Your task to perform on an android device: What's on my calendar today? Image 0: 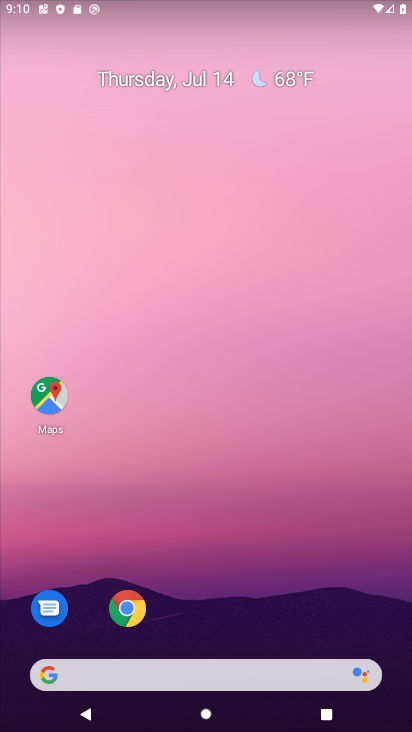
Step 0: drag from (186, 687) to (280, 175)
Your task to perform on an android device: What's on my calendar today? Image 1: 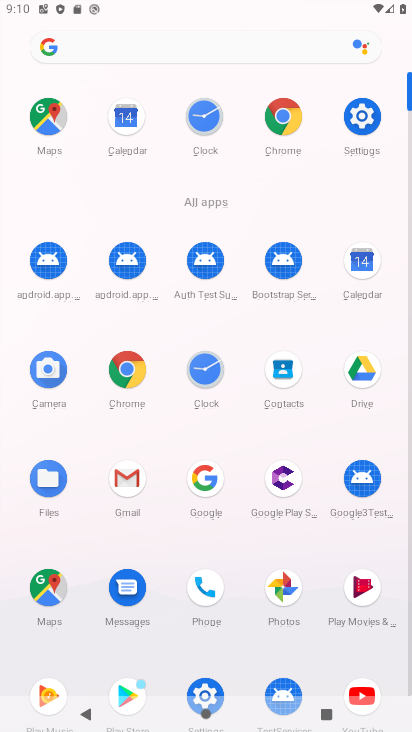
Step 1: click (360, 272)
Your task to perform on an android device: What's on my calendar today? Image 2: 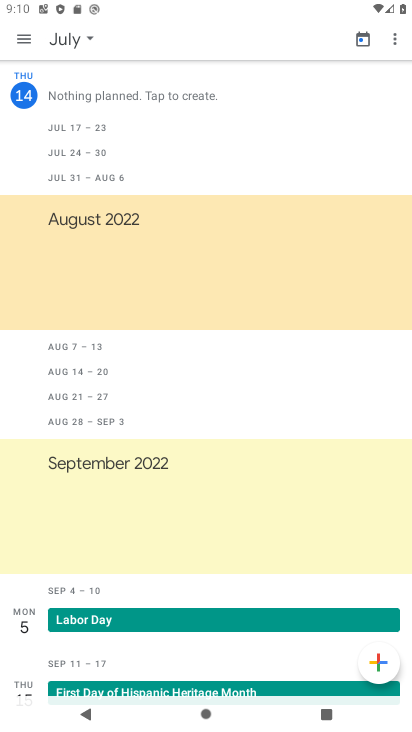
Step 2: click (17, 40)
Your task to perform on an android device: What's on my calendar today? Image 3: 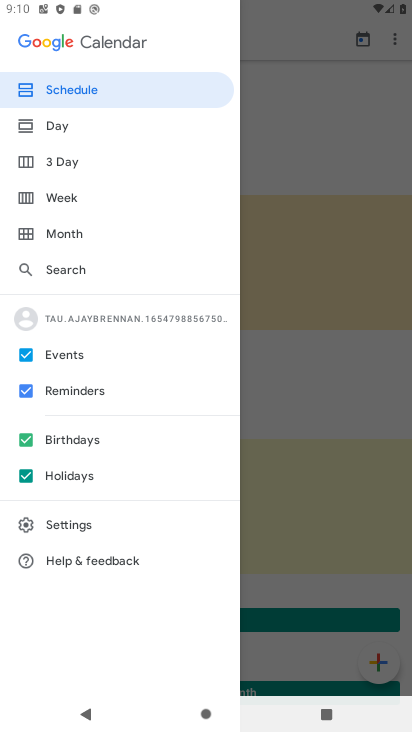
Step 3: click (91, 101)
Your task to perform on an android device: What's on my calendar today? Image 4: 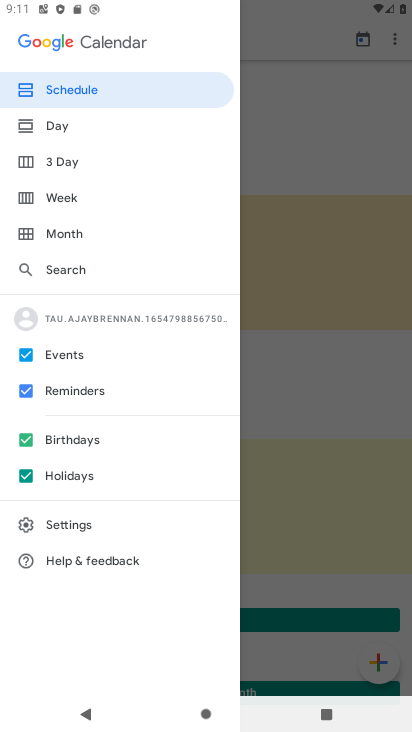
Step 4: click (84, 83)
Your task to perform on an android device: What's on my calendar today? Image 5: 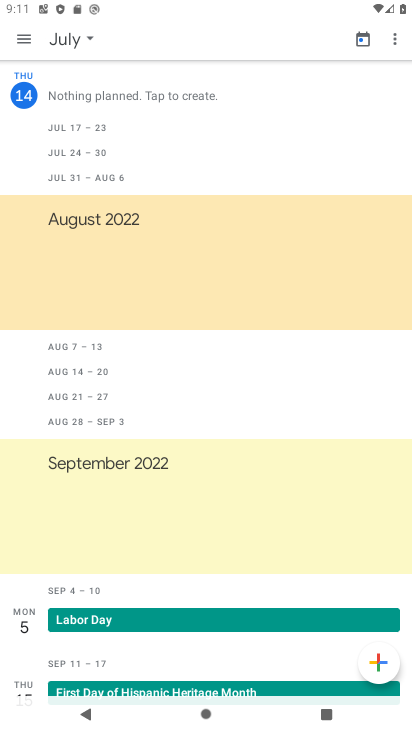
Step 5: task complete